Your task to perform on an android device: Open accessibility settings Image 0: 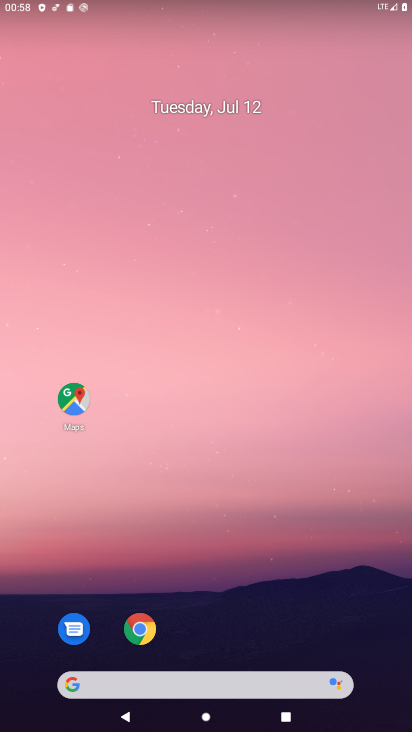
Step 0: drag from (32, 693) to (268, 18)
Your task to perform on an android device: Open accessibility settings Image 1: 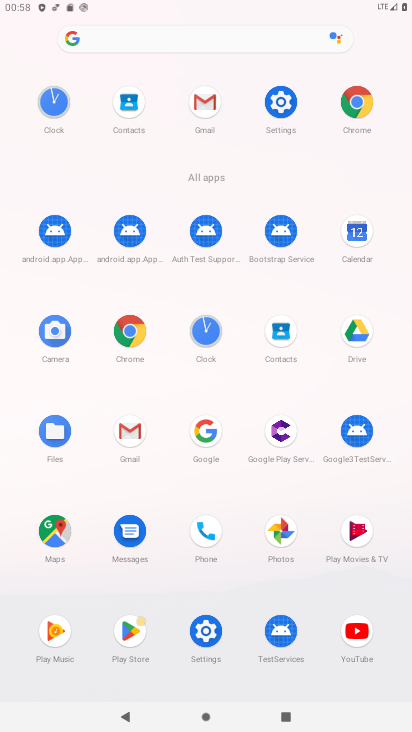
Step 1: click (200, 634)
Your task to perform on an android device: Open accessibility settings Image 2: 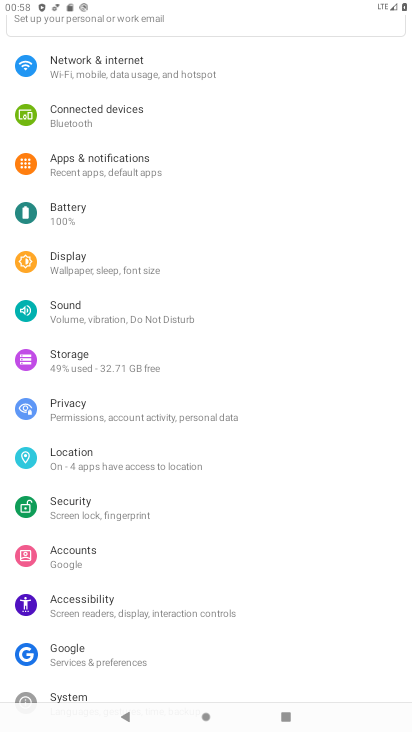
Step 2: click (113, 597)
Your task to perform on an android device: Open accessibility settings Image 3: 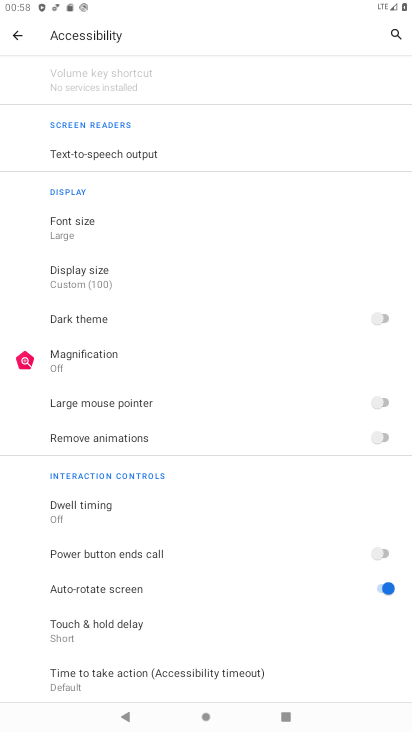
Step 3: task complete